Your task to perform on an android device: turn off javascript in the chrome app Image 0: 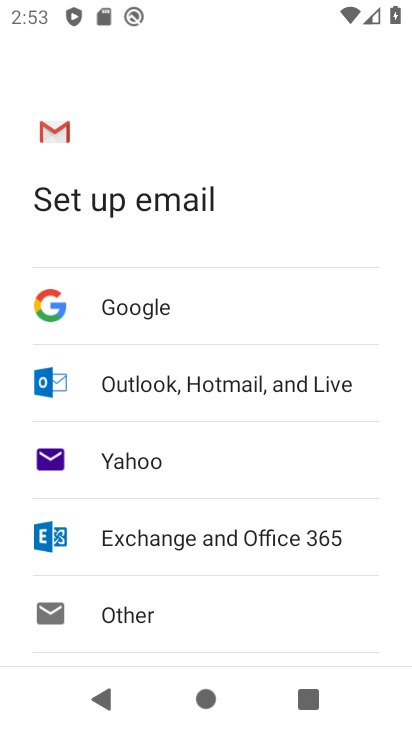
Step 0: press home button
Your task to perform on an android device: turn off javascript in the chrome app Image 1: 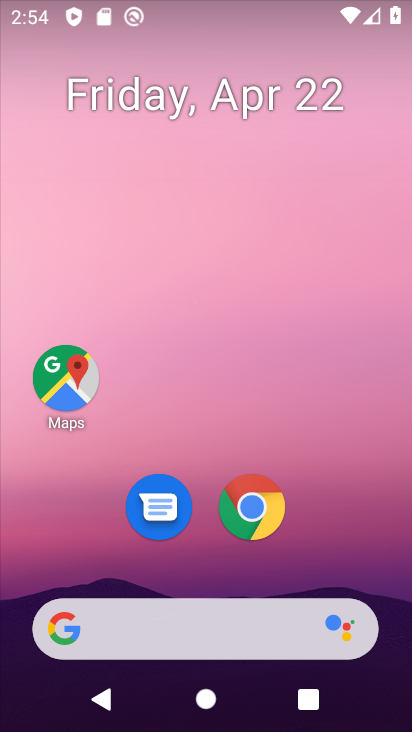
Step 1: drag from (201, 603) to (189, 5)
Your task to perform on an android device: turn off javascript in the chrome app Image 2: 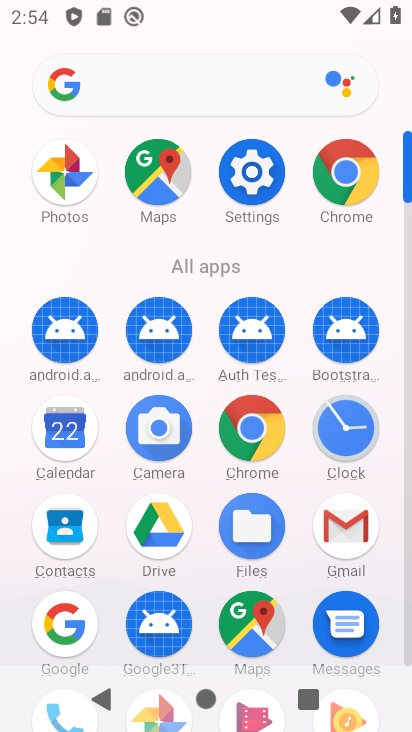
Step 2: click (254, 437)
Your task to perform on an android device: turn off javascript in the chrome app Image 3: 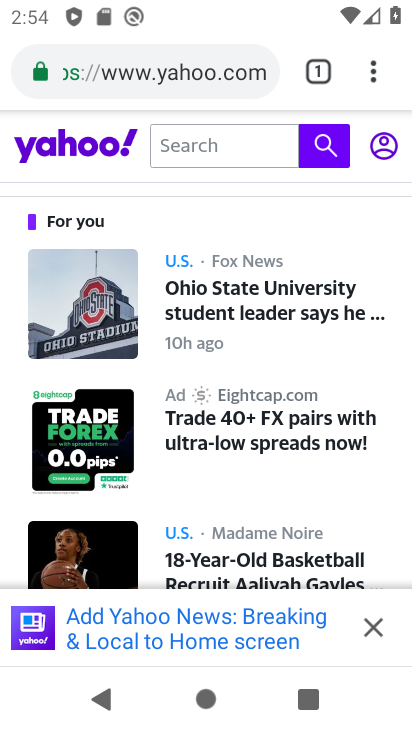
Step 3: drag from (367, 76) to (167, 512)
Your task to perform on an android device: turn off javascript in the chrome app Image 4: 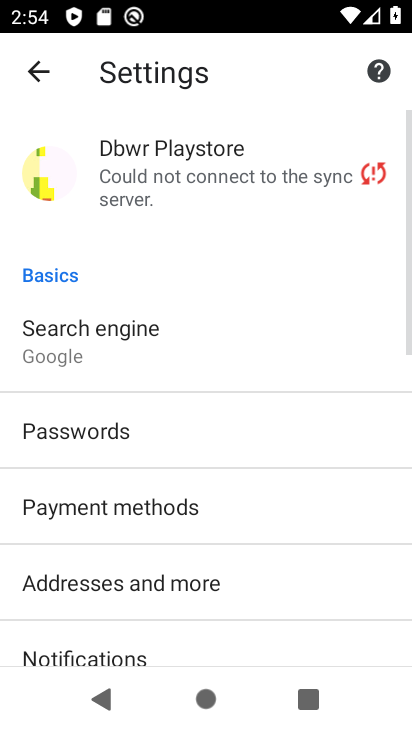
Step 4: drag from (132, 571) to (147, 7)
Your task to perform on an android device: turn off javascript in the chrome app Image 5: 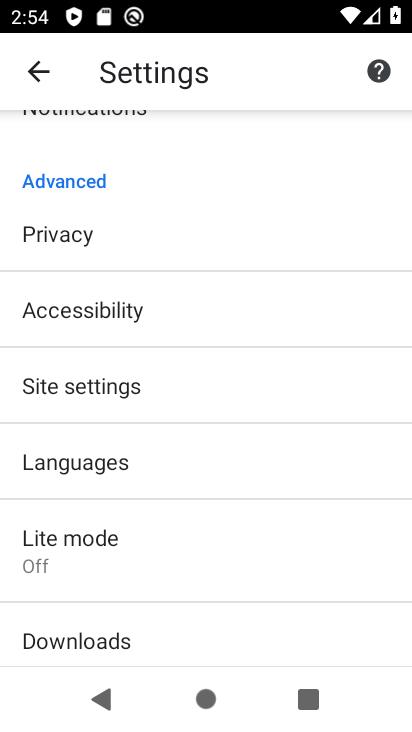
Step 5: click (85, 391)
Your task to perform on an android device: turn off javascript in the chrome app Image 6: 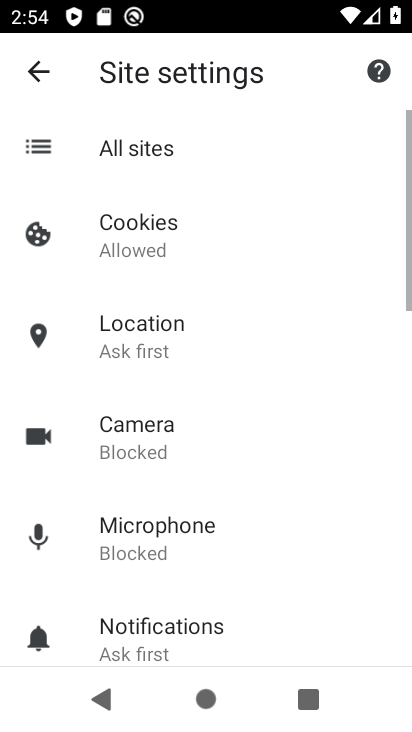
Step 6: drag from (148, 596) to (141, 101)
Your task to perform on an android device: turn off javascript in the chrome app Image 7: 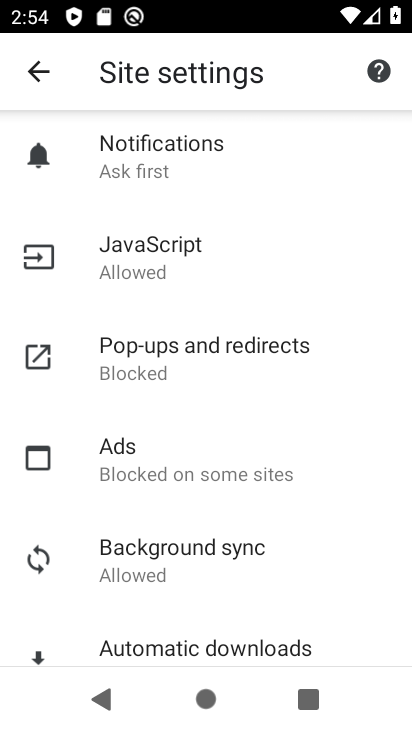
Step 7: click (144, 272)
Your task to perform on an android device: turn off javascript in the chrome app Image 8: 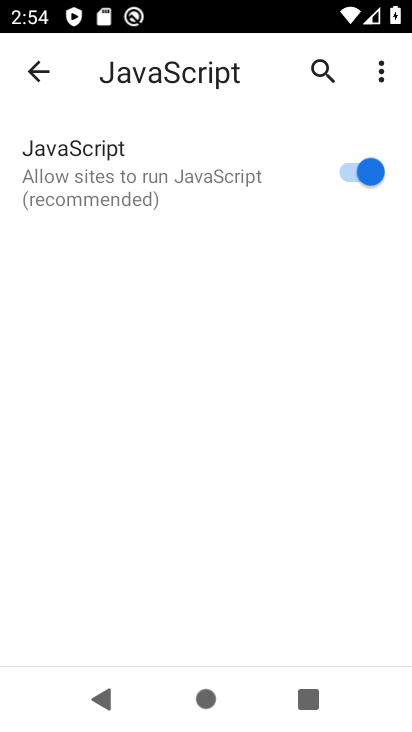
Step 8: click (348, 185)
Your task to perform on an android device: turn off javascript in the chrome app Image 9: 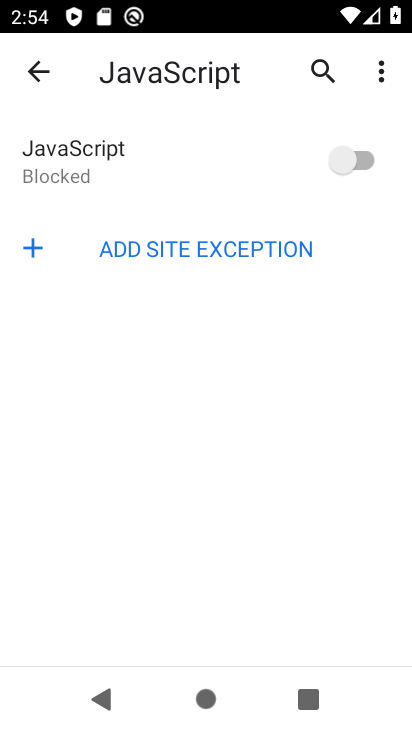
Step 9: task complete